Your task to perform on an android device: Open display settings Image 0: 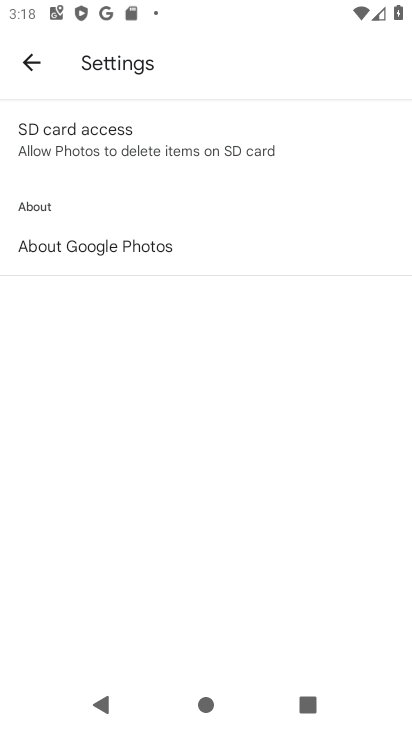
Step 0: click (230, 406)
Your task to perform on an android device: Open display settings Image 1: 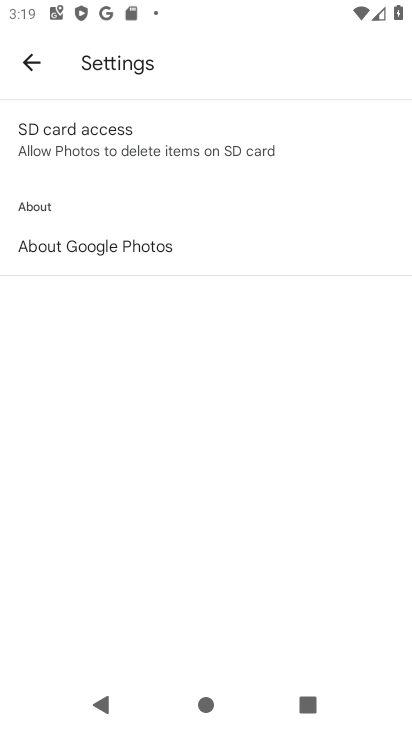
Step 1: press home button
Your task to perform on an android device: Open display settings Image 2: 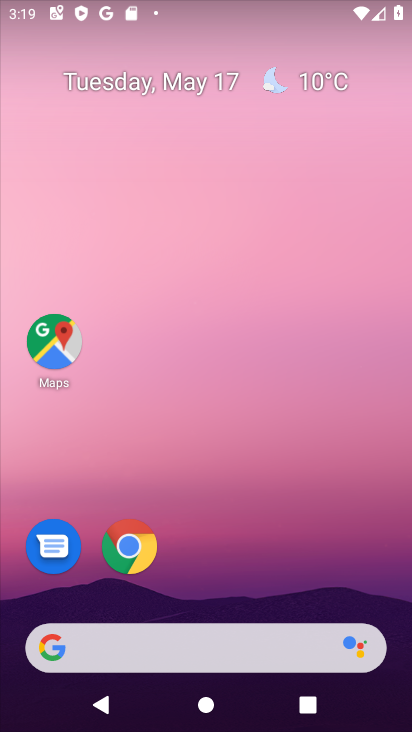
Step 2: drag from (240, 584) to (316, 57)
Your task to perform on an android device: Open display settings Image 3: 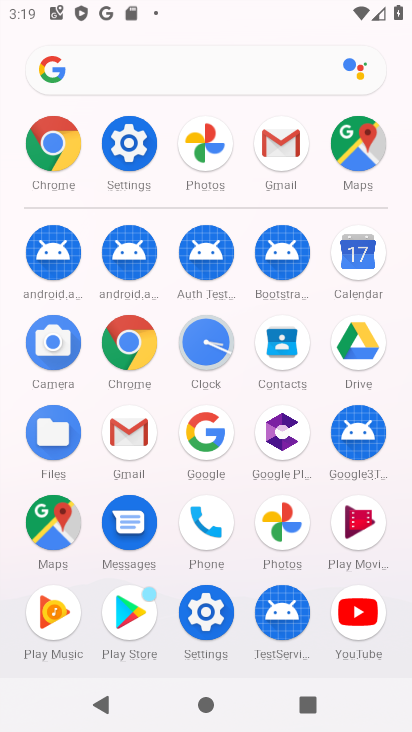
Step 3: click (211, 607)
Your task to perform on an android device: Open display settings Image 4: 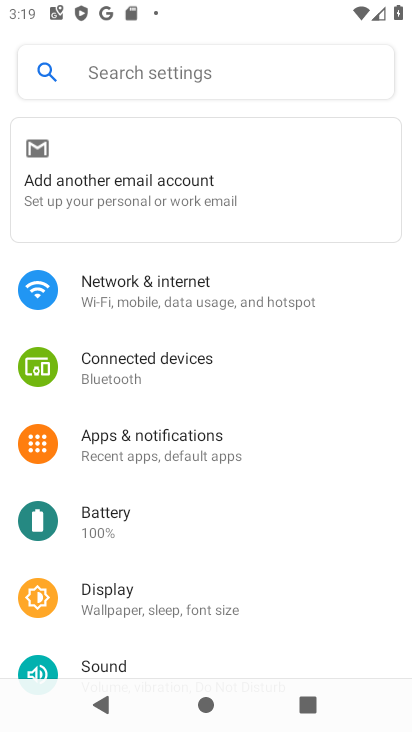
Step 4: click (128, 590)
Your task to perform on an android device: Open display settings Image 5: 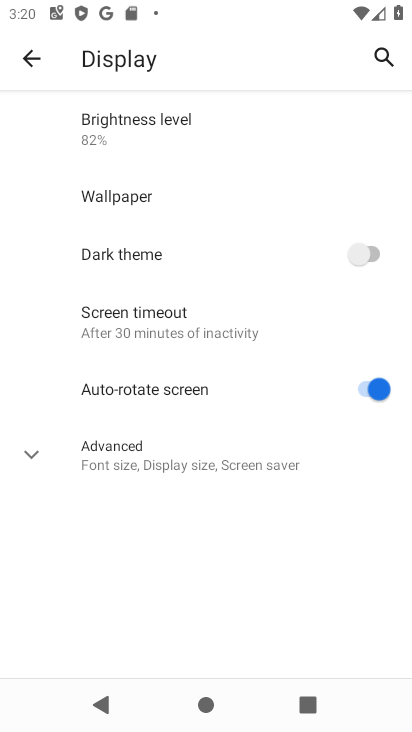
Step 5: task complete